Your task to perform on an android device: Open Google Chrome and click the shortcut for Amazon.com Image 0: 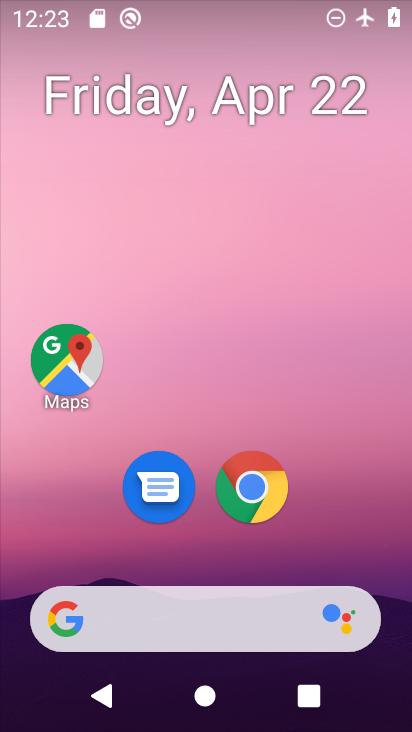
Step 0: drag from (293, 430) to (308, 170)
Your task to perform on an android device: Open Google Chrome and click the shortcut for Amazon.com Image 1: 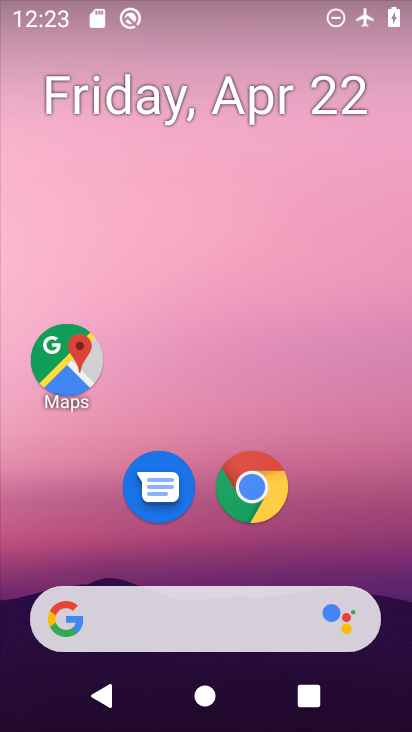
Step 1: drag from (300, 499) to (329, 199)
Your task to perform on an android device: Open Google Chrome and click the shortcut for Amazon.com Image 2: 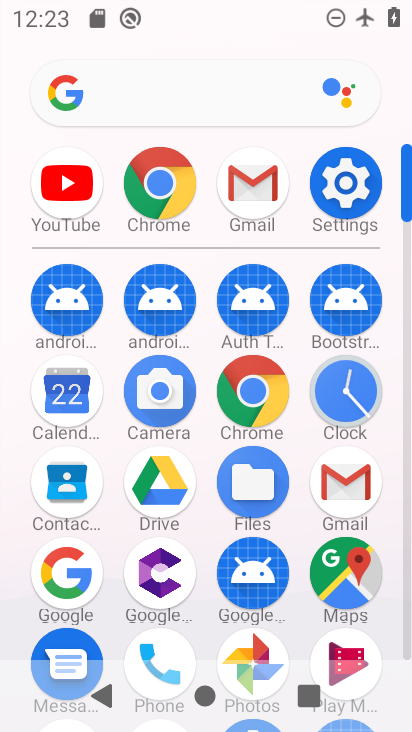
Step 2: click (157, 178)
Your task to perform on an android device: Open Google Chrome and click the shortcut for Amazon.com Image 3: 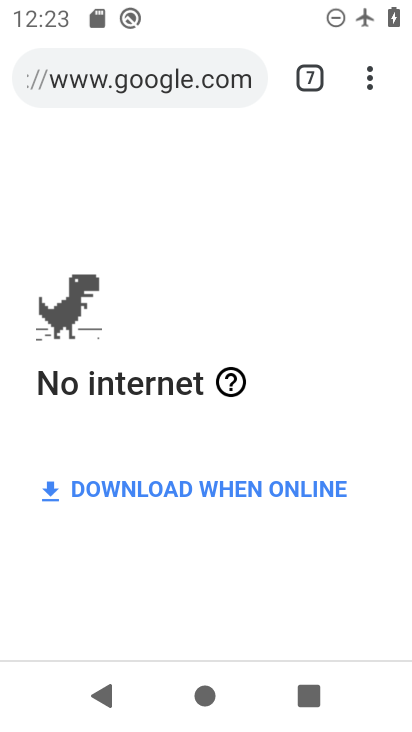
Step 3: click (354, 70)
Your task to perform on an android device: Open Google Chrome and click the shortcut for Amazon.com Image 4: 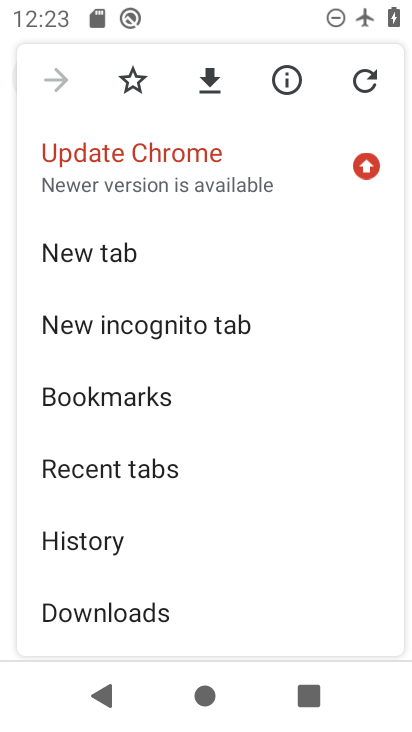
Step 4: click (176, 240)
Your task to perform on an android device: Open Google Chrome and click the shortcut for Amazon.com Image 5: 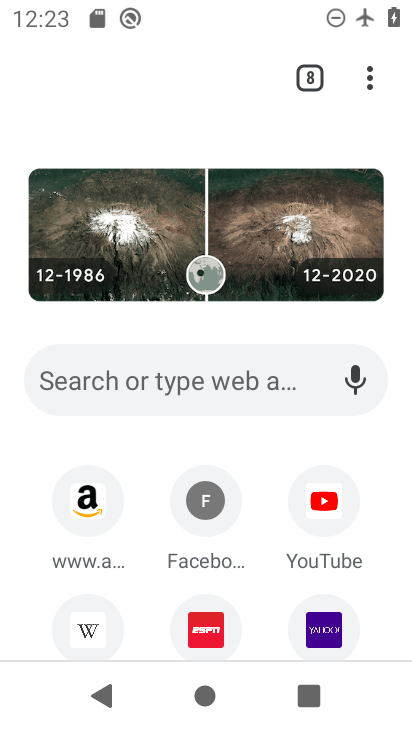
Step 5: click (75, 502)
Your task to perform on an android device: Open Google Chrome and click the shortcut for Amazon.com Image 6: 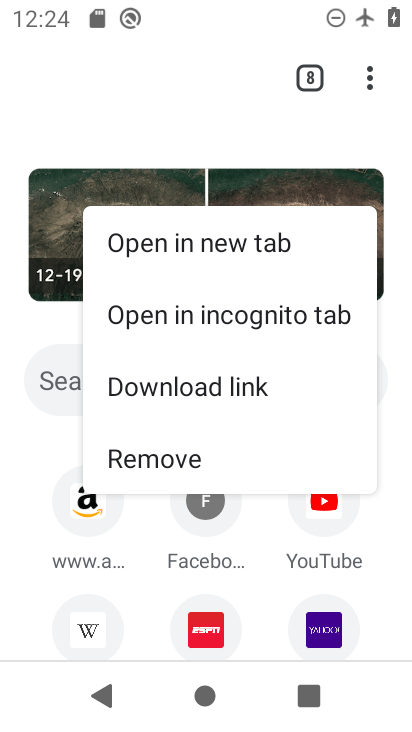
Step 6: click (58, 520)
Your task to perform on an android device: Open Google Chrome and click the shortcut for Amazon.com Image 7: 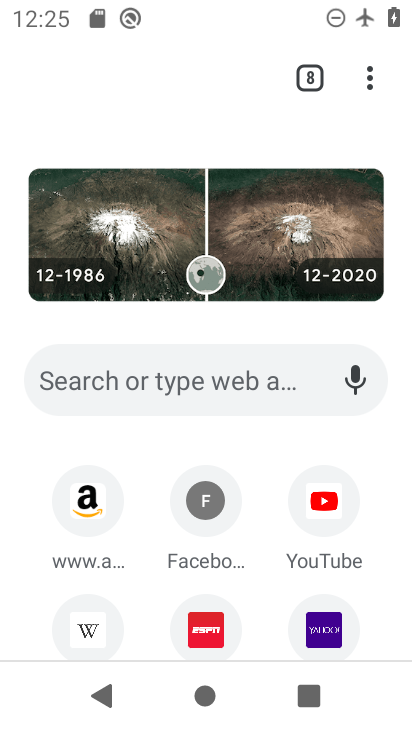
Step 7: click (80, 501)
Your task to perform on an android device: Open Google Chrome and click the shortcut for Amazon.com Image 8: 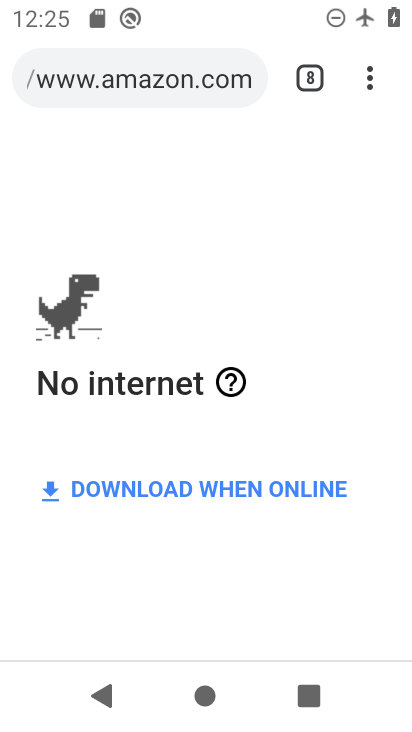
Step 8: task complete